Your task to perform on an android device: Do I have any events tomorrow? Image 0: 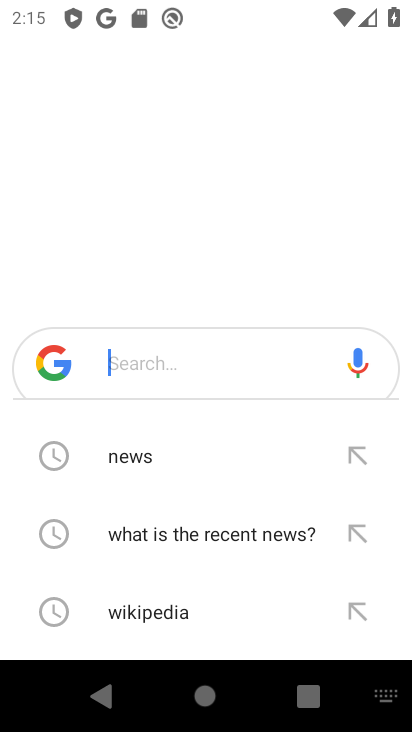
Step 0: press back button
Your task to perform on an android device: Do I have any events tomorrow? Image 1: 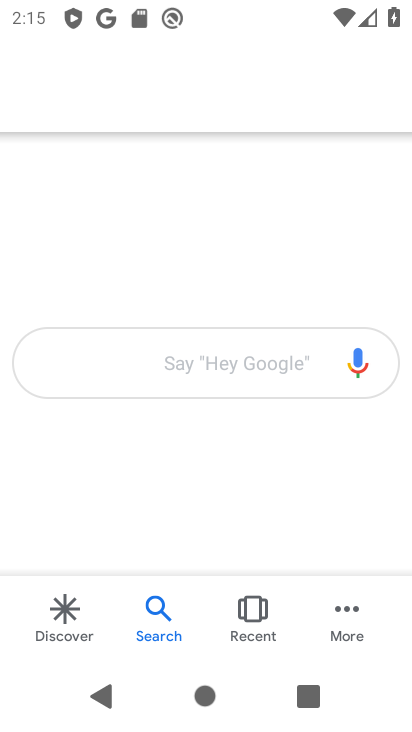
Step 1: press back button
Your task to perform on an android device: Do I have any events tomorrow? Image 2: 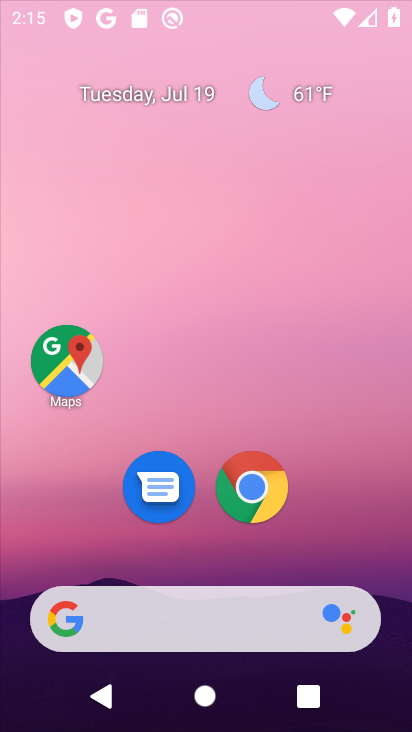
Step 2: press back button
Your task to perform on an android device: Do I have any events tomorrow? Image 3: 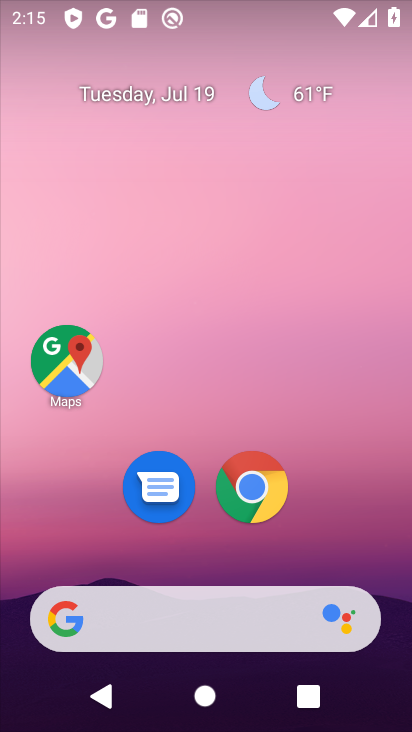
Step 3: drag from (207, 564) to (265, 3)
Your task to perform on an android device: Do I have any events tomorrow? Image 4: 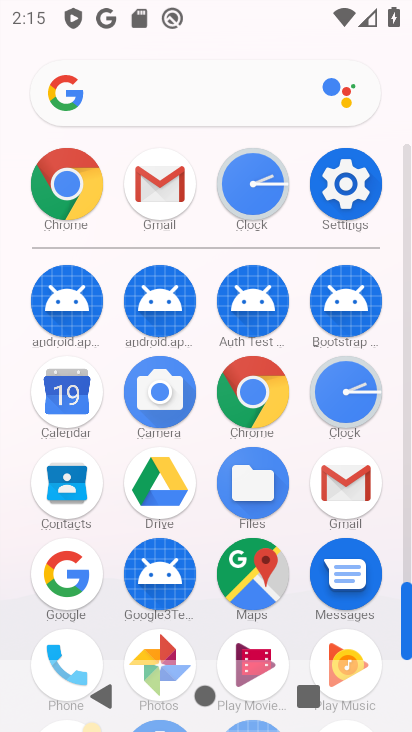
Step 4: click (87, 398)
Your task to perform on an android device: Do I have any events tomorrow? Image 5: 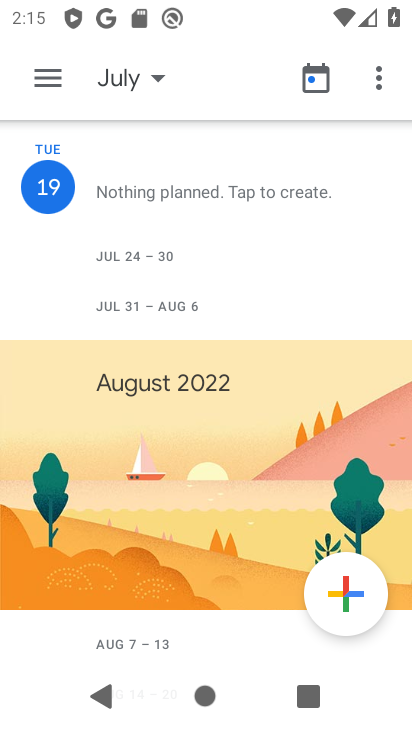
Step 5: task complete